Your task to perform on an android device: Toggle the flashlight Image 0: 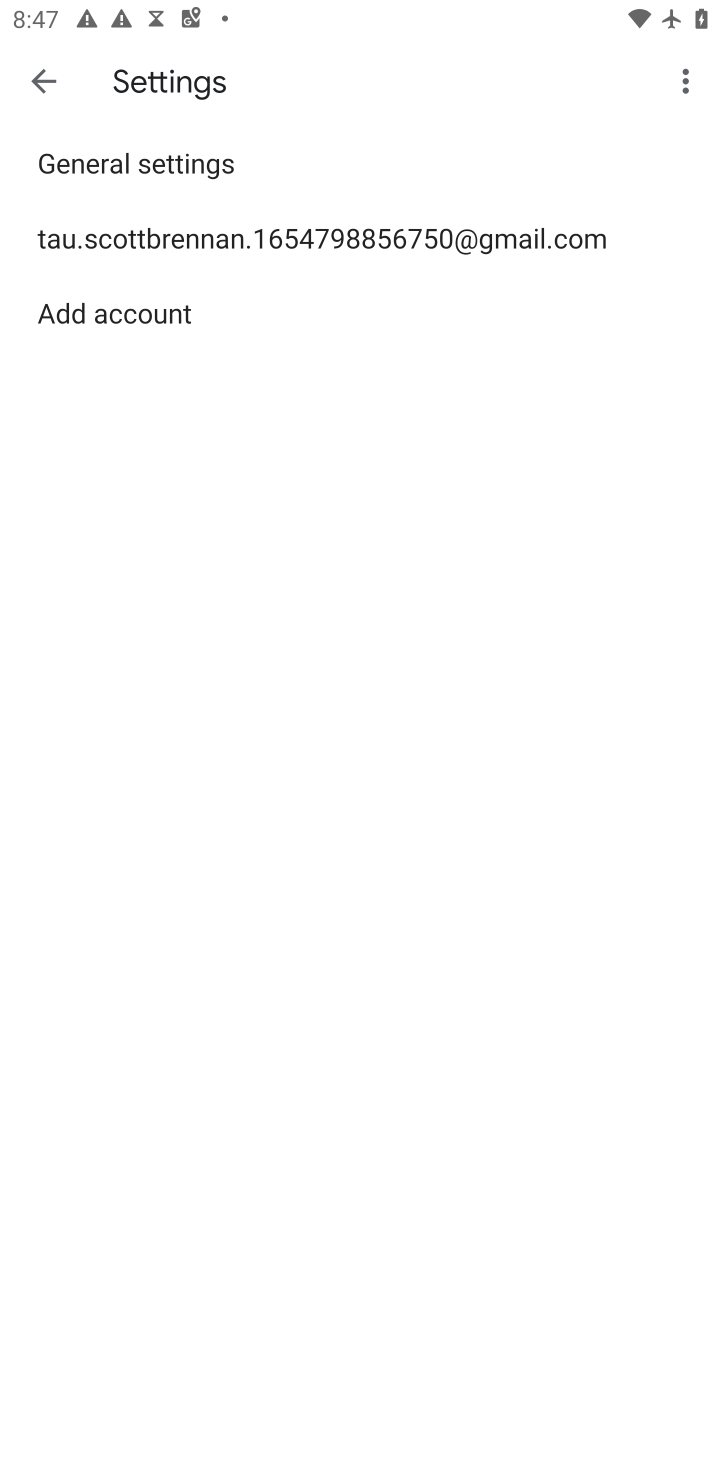
Step 0: press home button
Your task to perform on an android device: Toggle the flashlight Image 1: 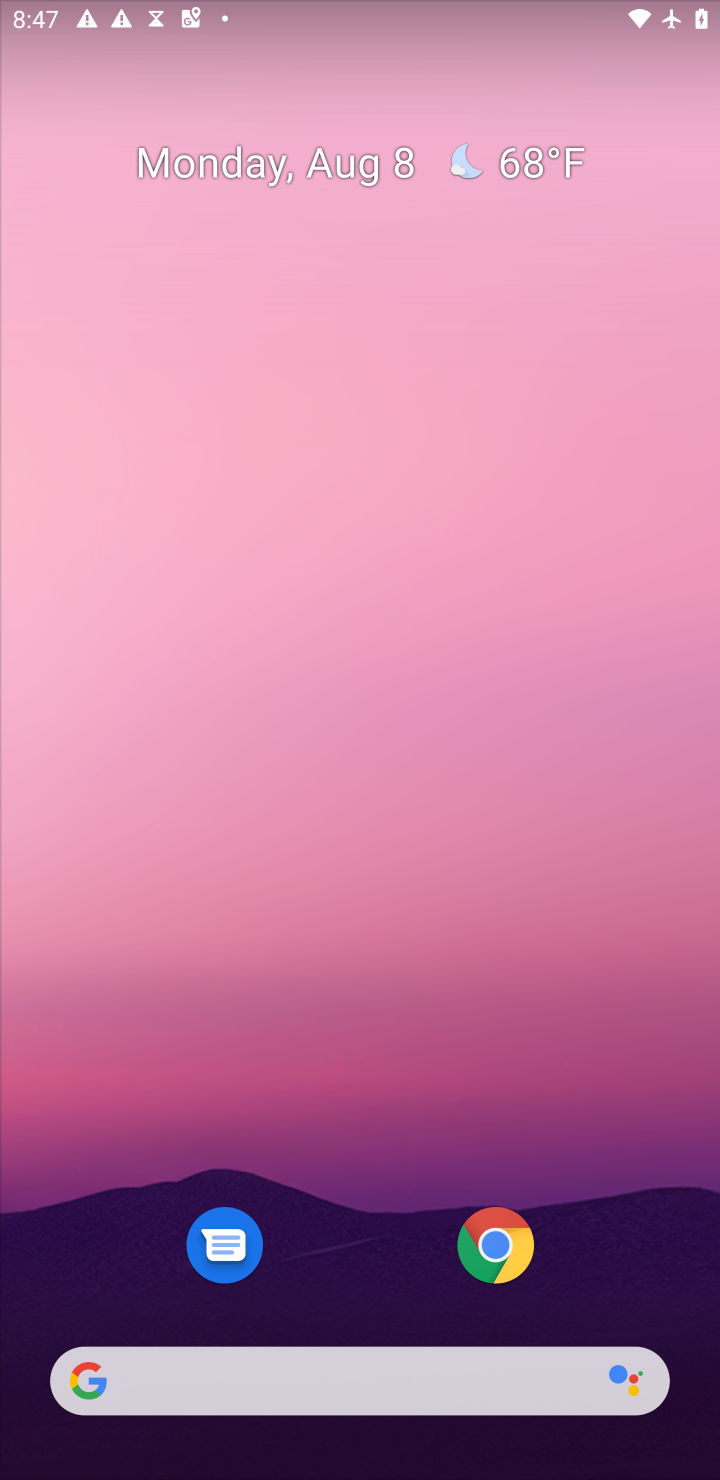
Step 1: drag from (349, 1299) to (505, 122)
Your task to perform on an android device: Toggle the flashlight Image 2: 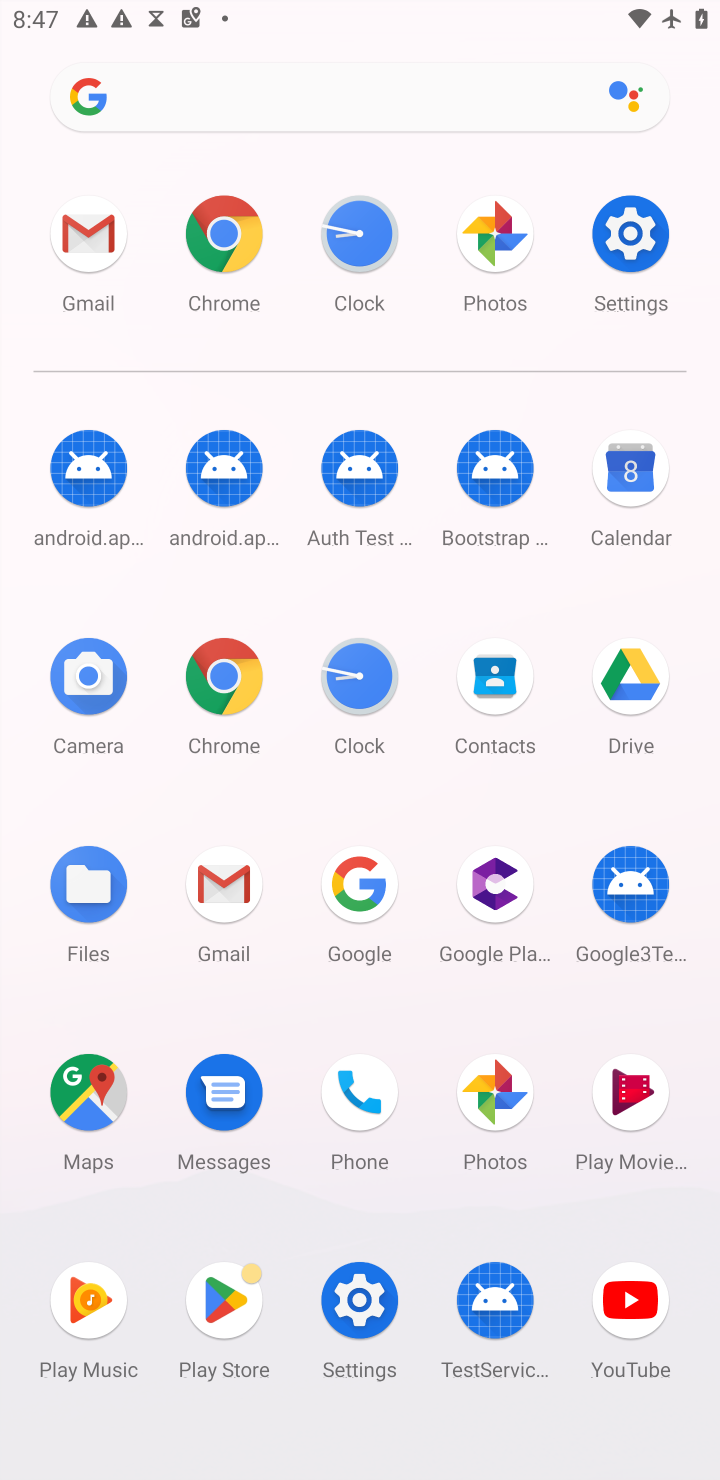
Step 2: click (363, 1314)
Your task to perform on an android device: Toggle the flashlight Image 3: 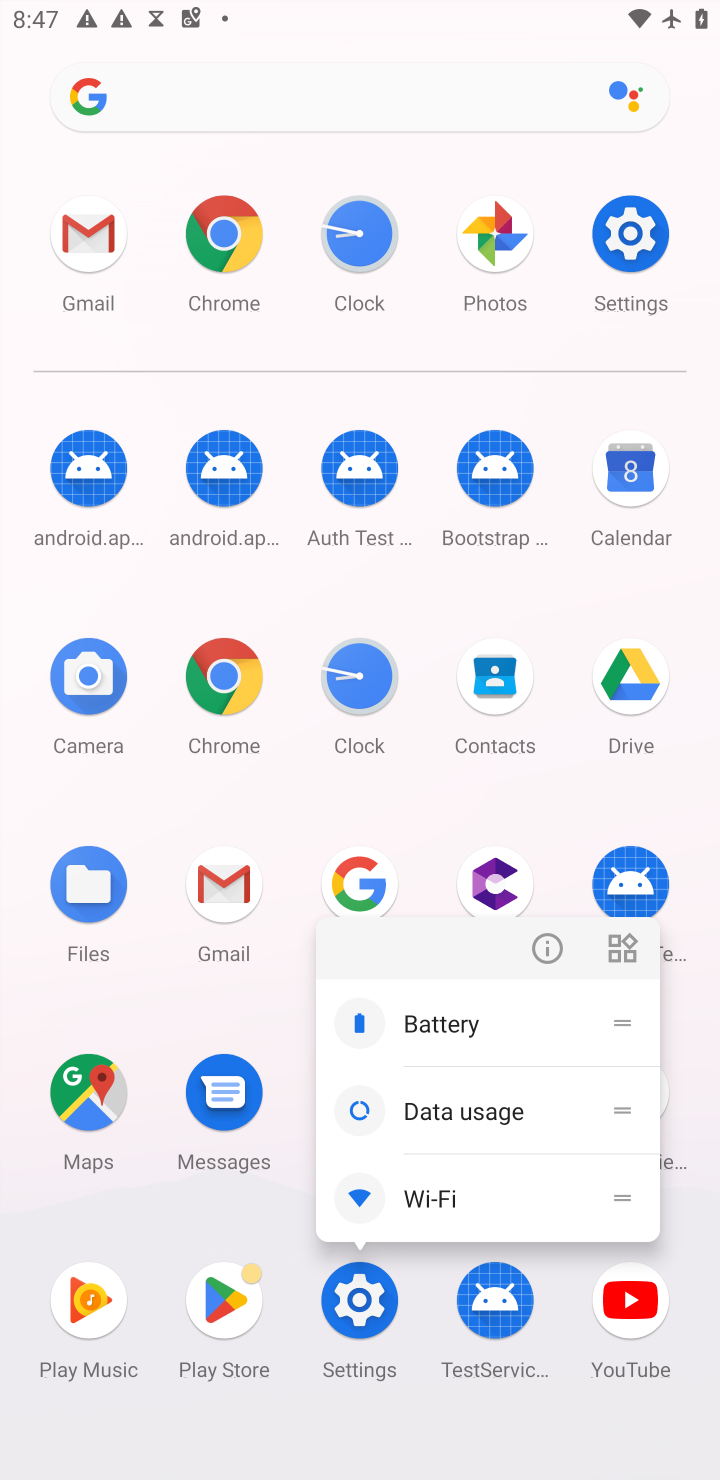
Step 3: click (342, 1322)
Your task to perform on an android device: Toggle the flashlight Image 4: 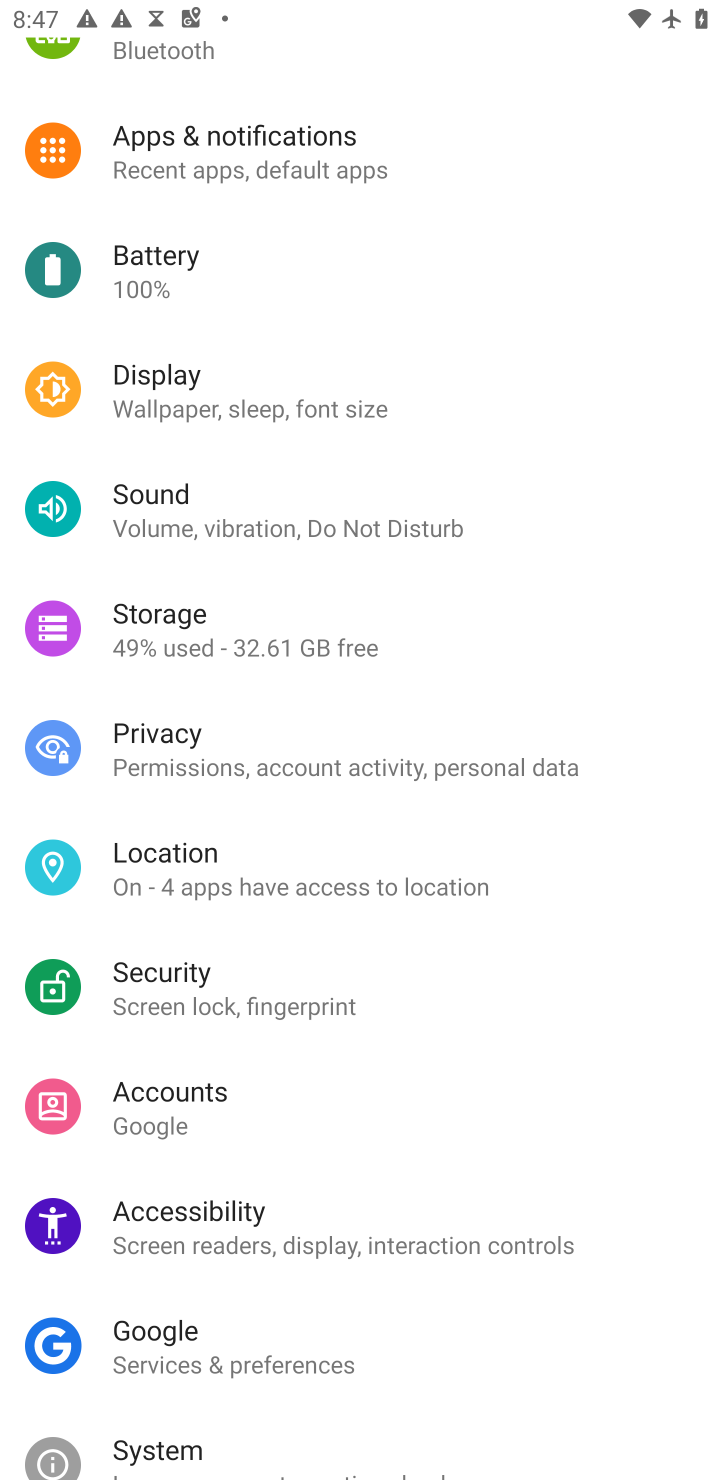
Step 4: drag from (373, 203) to (344, 1232)
Your task to perform on an android device: Toggle the flashlight Image 5: 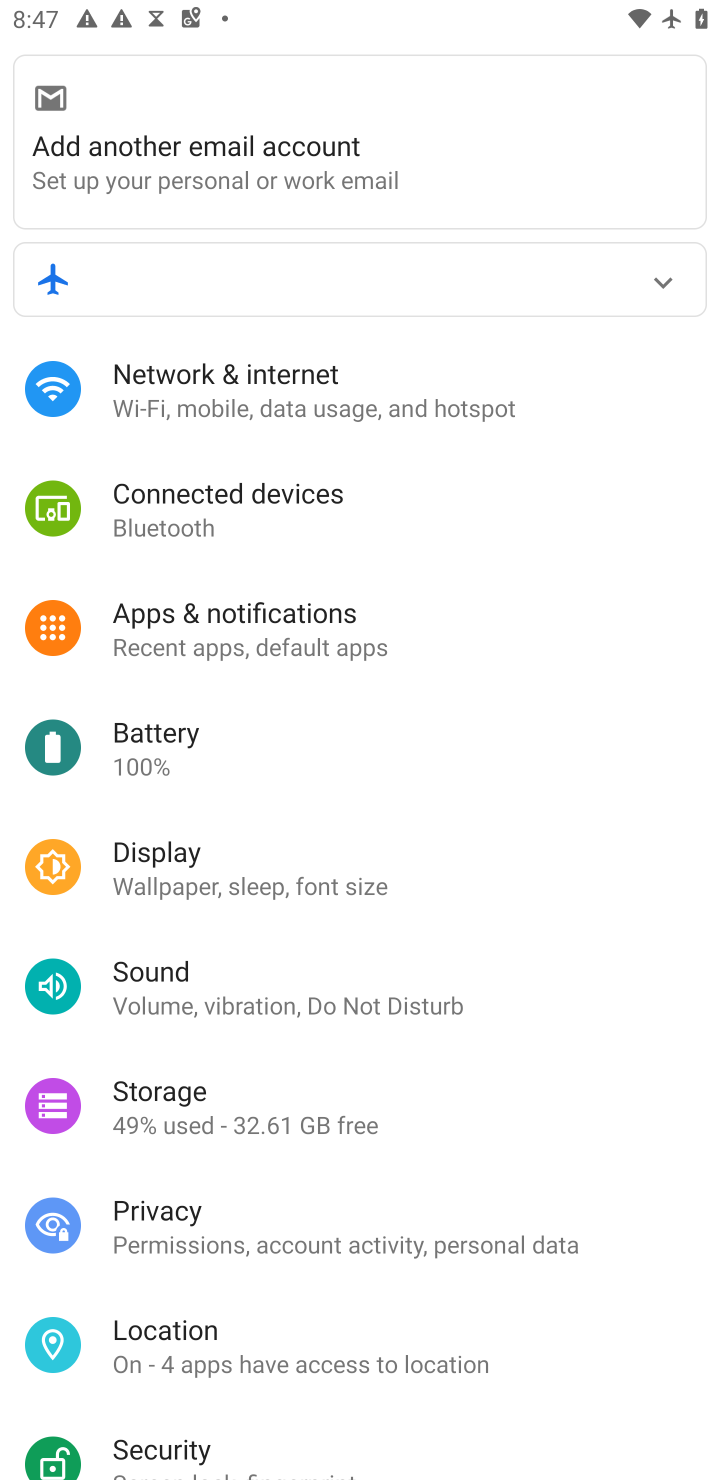
Step 5: drag from (296, 433) to (211, 1209)
Your task to perform on an android device: Toggle the flashlight Image 6: 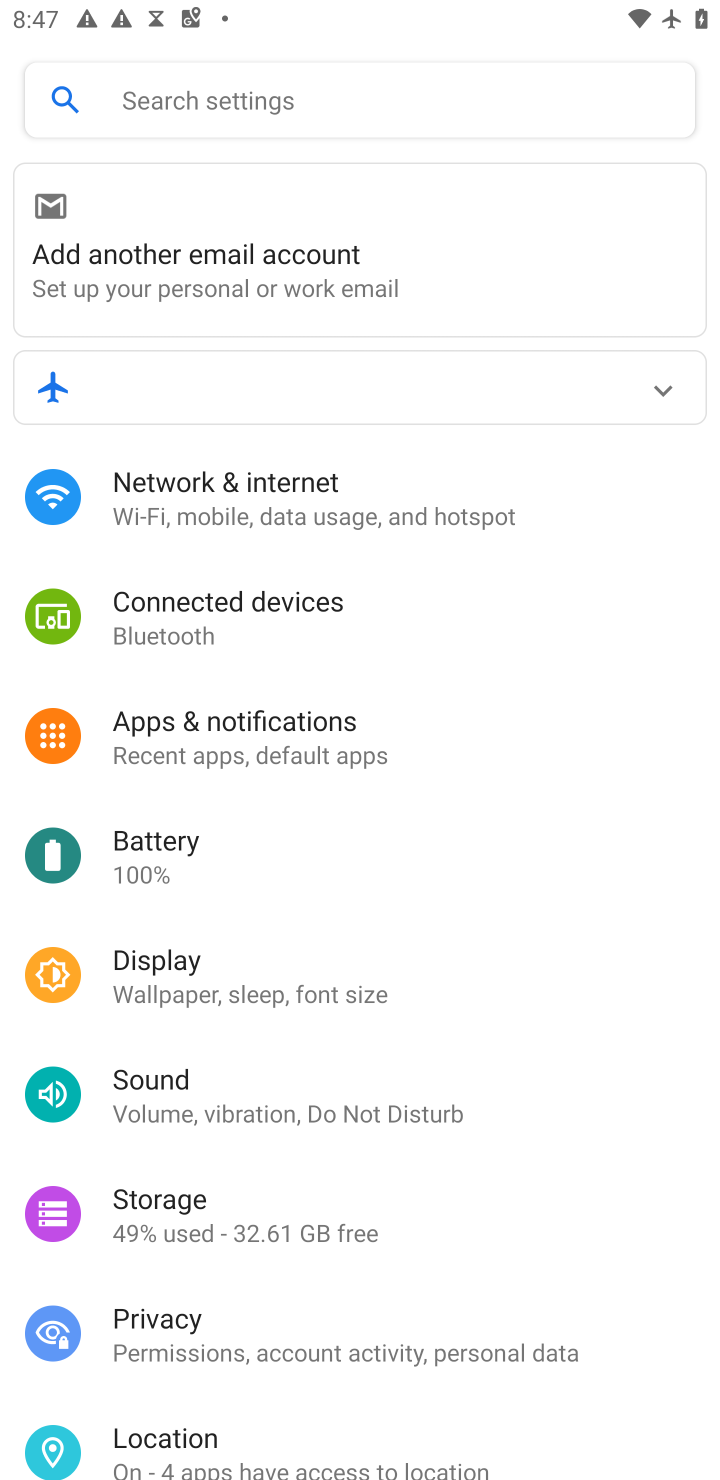
Step 6: click (336, 94)
Your task to perform on an android device: Toggle the flashlight Image 7: 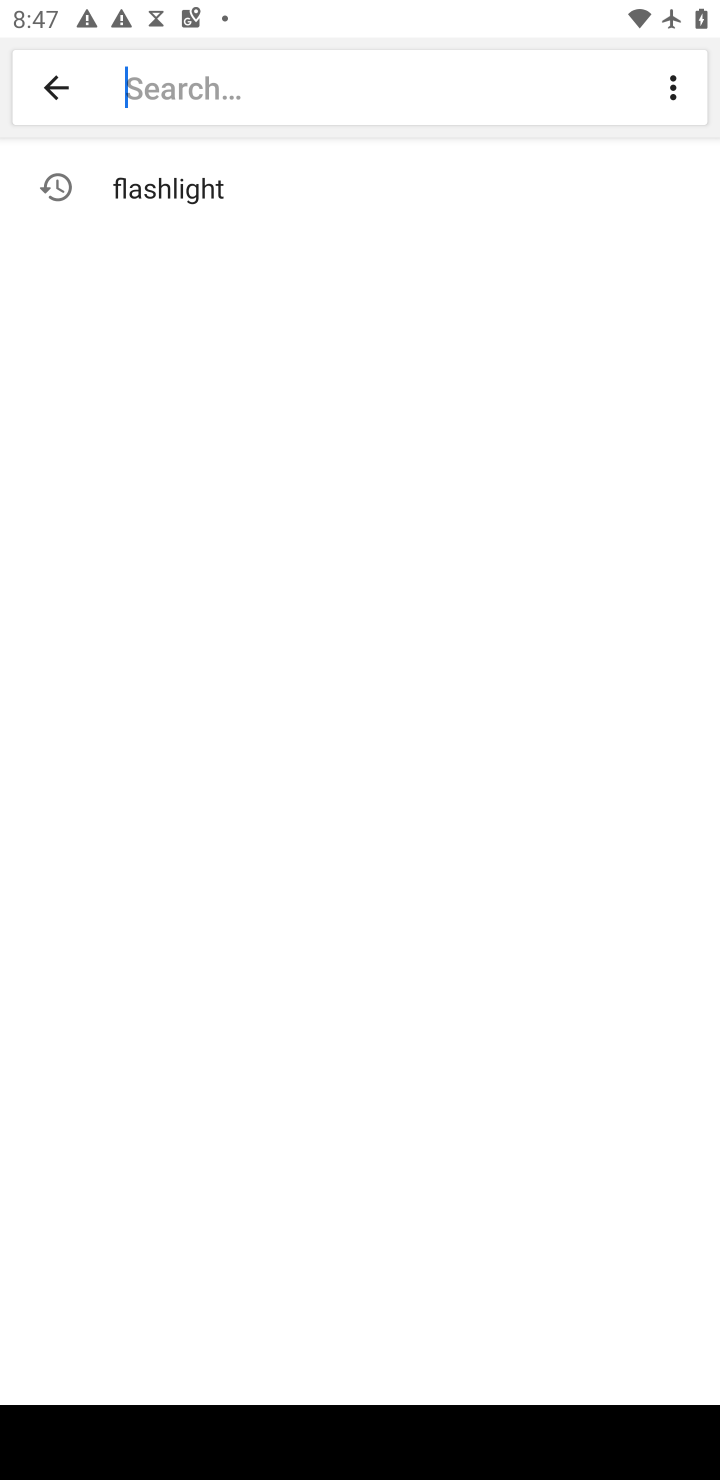
Step 7: type "flashlight"
Your task to perform on an android device: Toggle the flashlight Image 8: 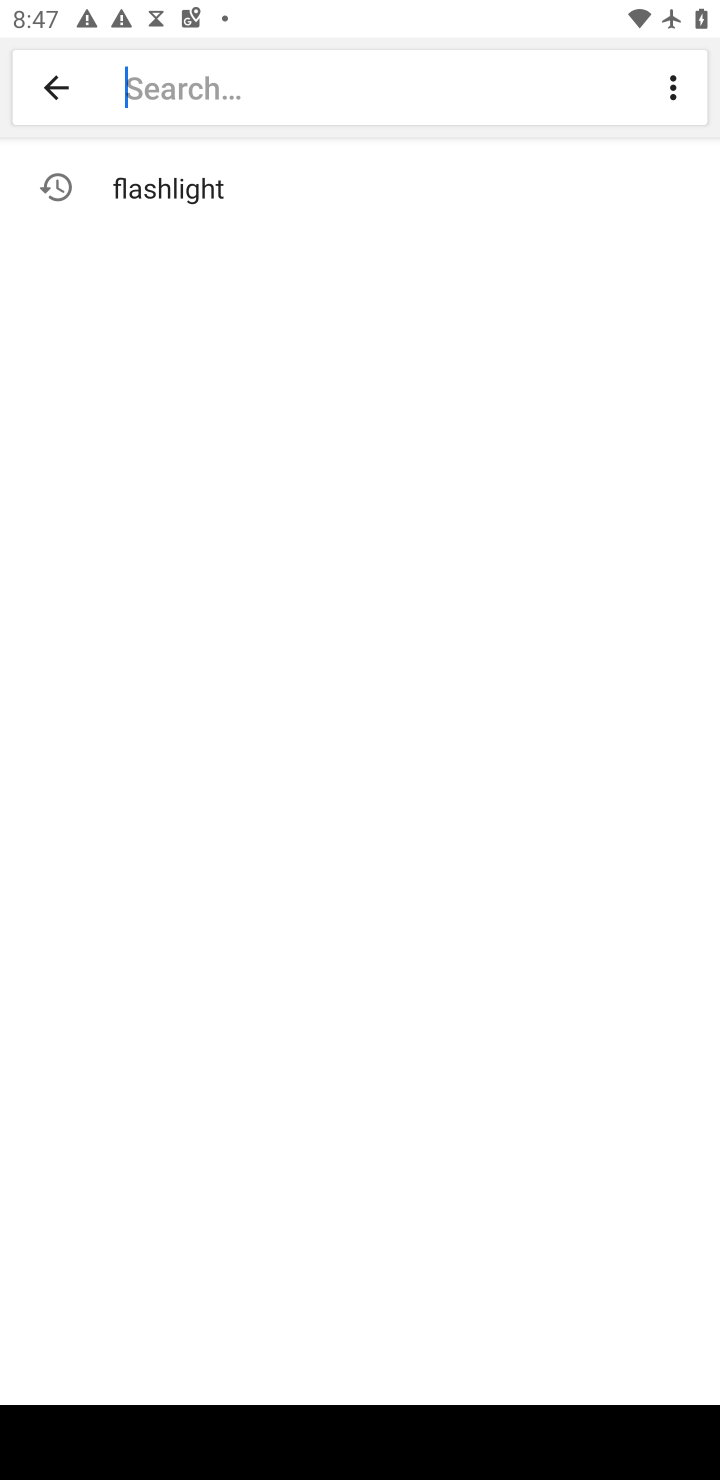
Step 8: click (288, 180)
Your task to perform on an android device: Toggle the flashlight Image 9: 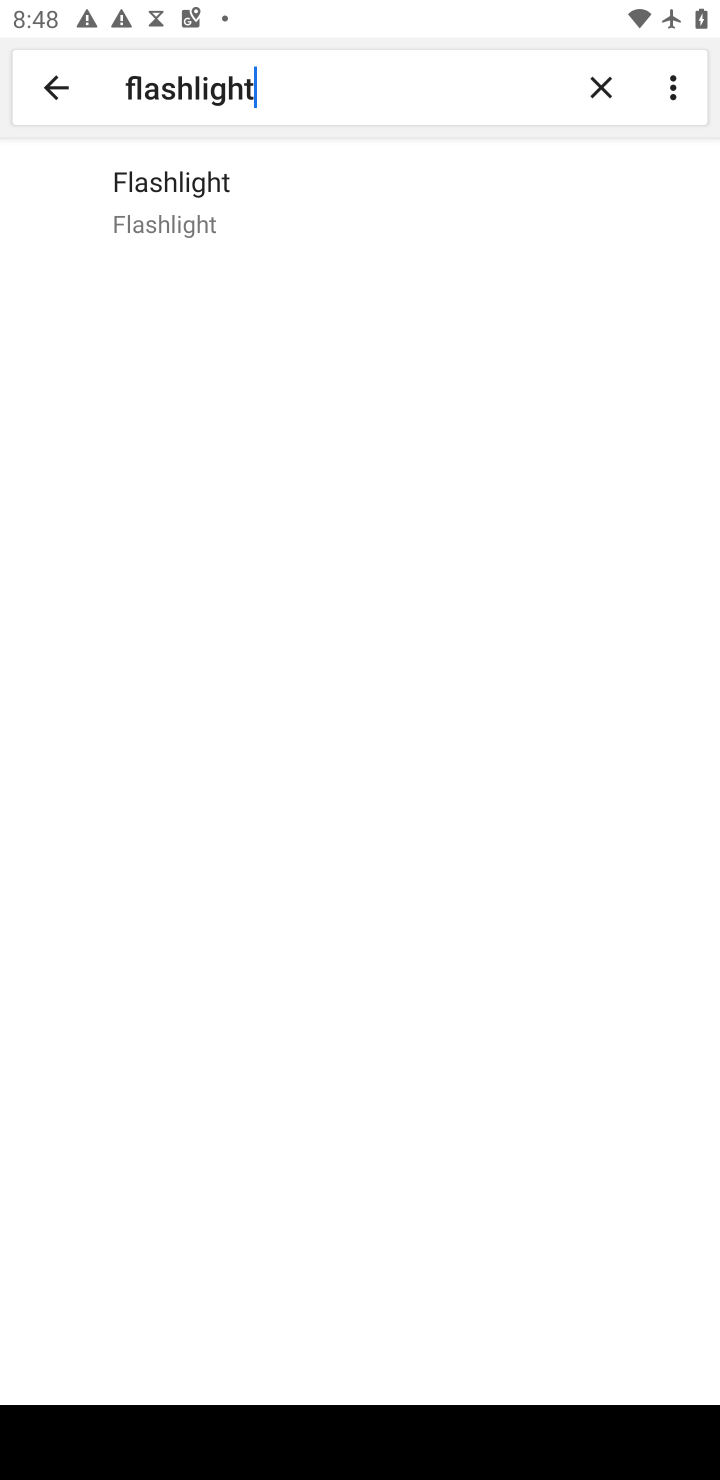
Step 9: click (124, 203)
Your task to perform on an android device: Toggle the flashlight Image 10: 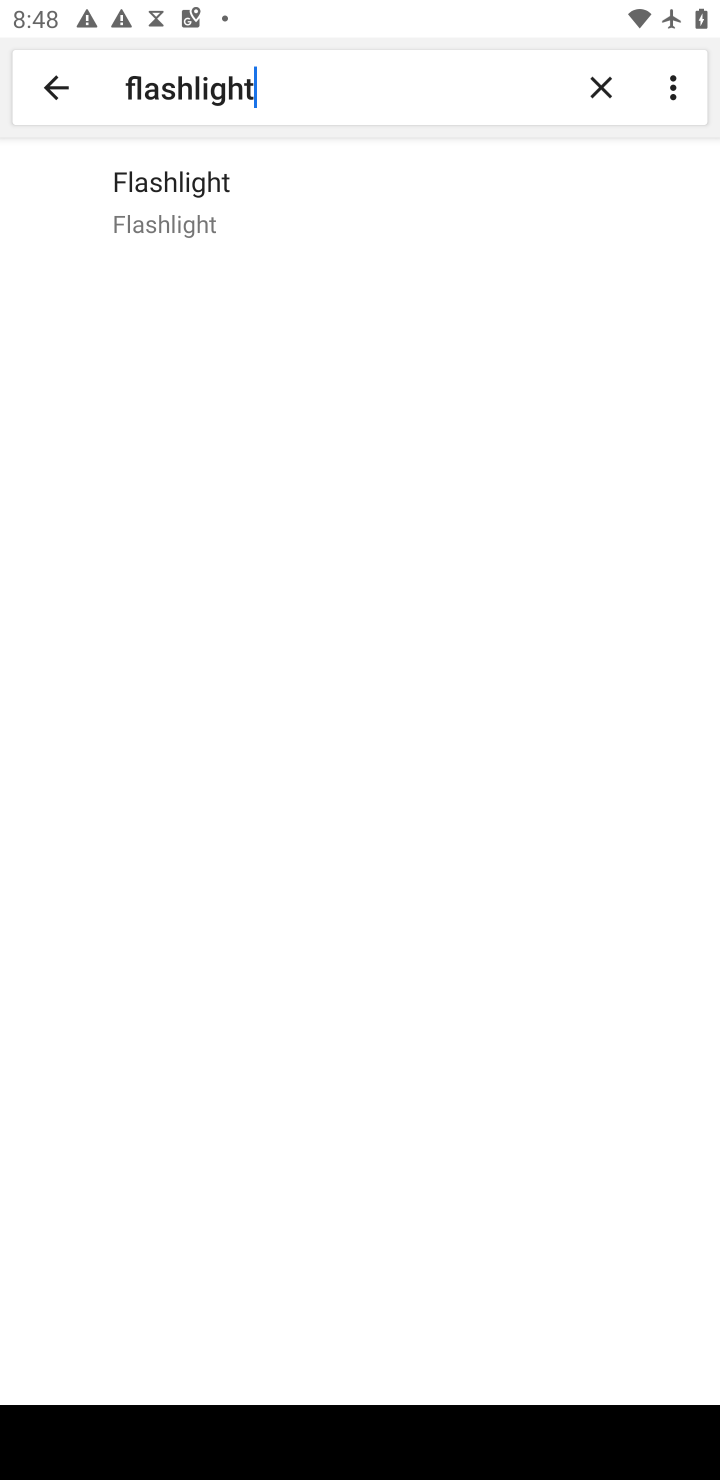
Step 10: click (126, 202)
Your task to perform on an android device: Toggle the flashlight Image 11: 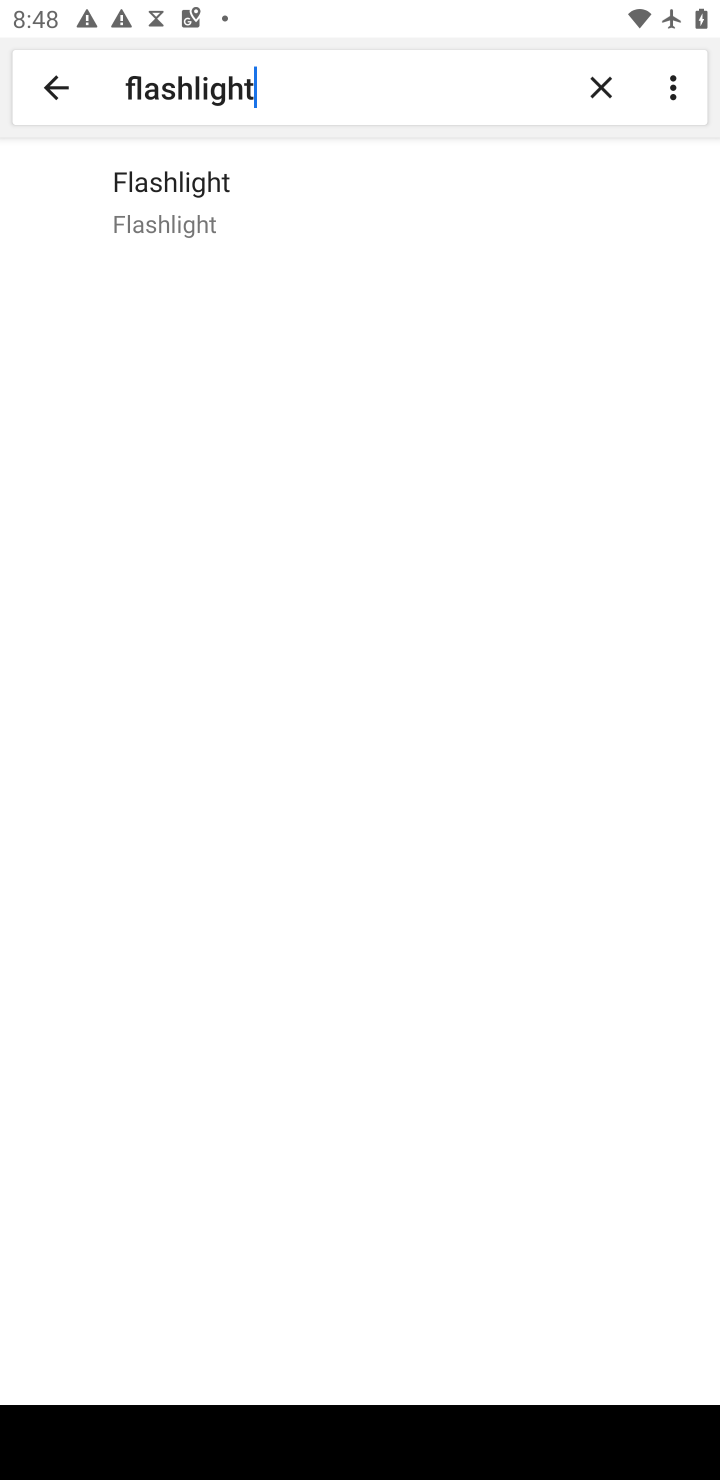
Step 11: task complete